Your task to perform on an android device: Play the last video I watched on Youtube Image 0: 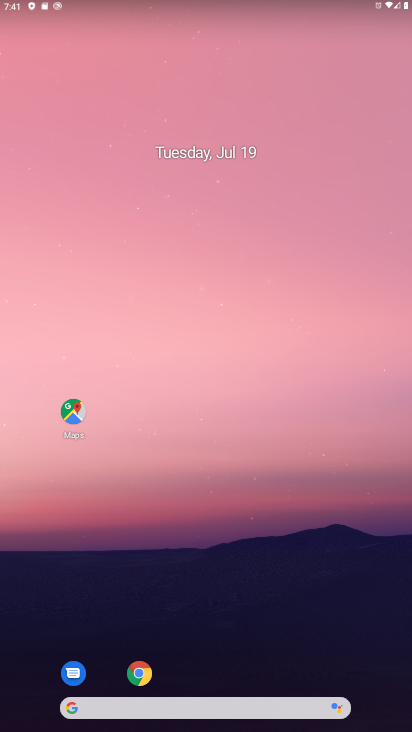
Step 0: drag from (324, 381) to (339, 55)
Your task to perform on an android device: Play the last video I watched on Youtube Image 1: 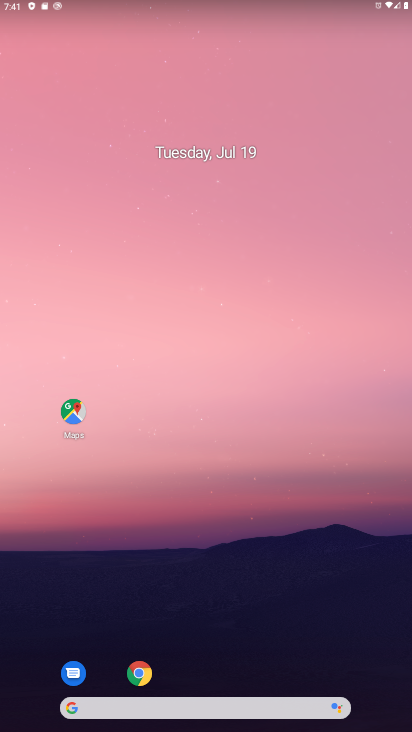
Step 1: drag from (250, 590) to (274, 62)
Your task to perform on an android device: Play the last video I watched on Youtube Image 2: 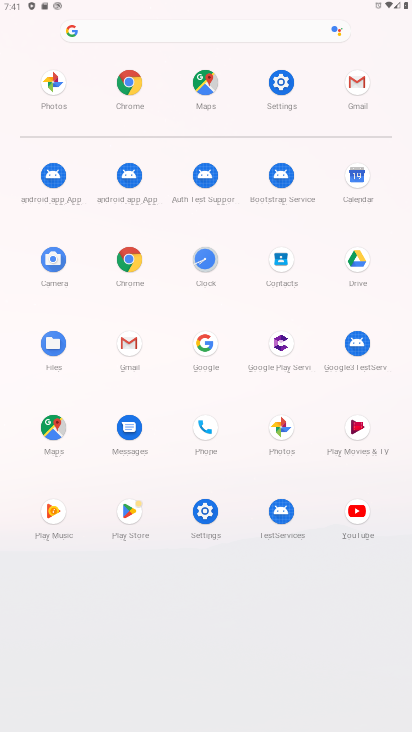
Step 2: click (362, 514)
Your task to perform on an android device: Play the last video I watched on Youtube Image 3: 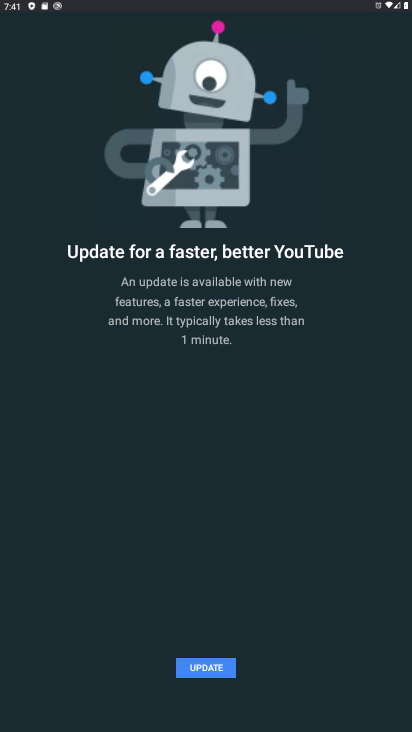
Step 3: click (204, 663)
Your task to perform on an android device: Play the last video I watched on Youtube Image 4: 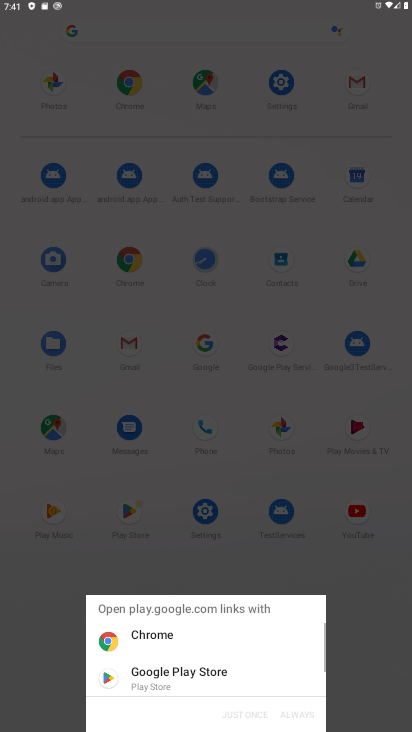
Step 4: click (173, 675)
Your task to perform on an android device: Play the last video I watched on Youtube Image 5: 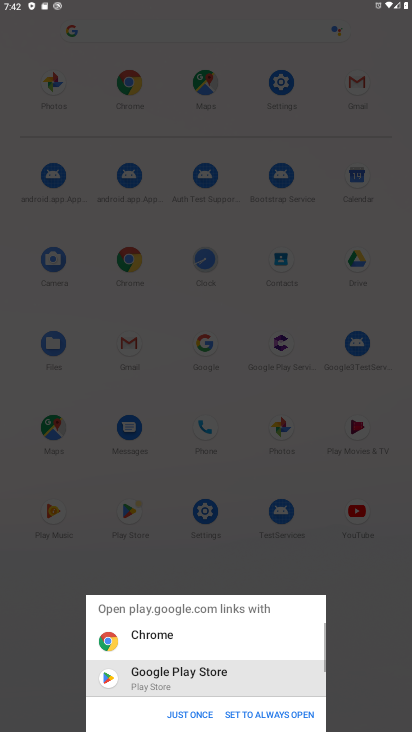
Step 5: click (187, 708)
Your task to perform on an android device: Play the last video I watched on Youtube Image 6: 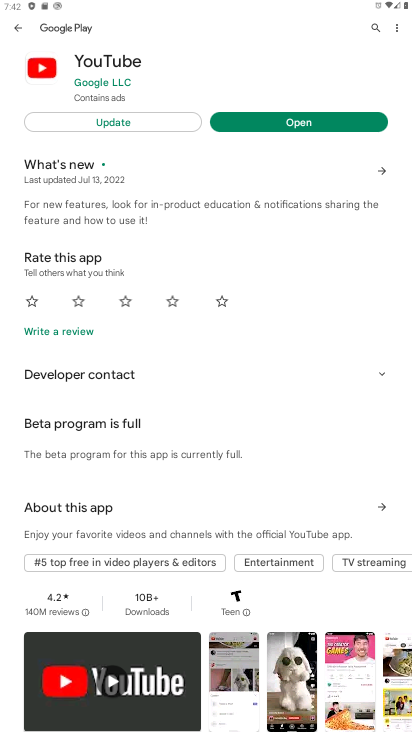
Step 6: click (100, 121)
Your task to perform on an android device: Play the last video I watched on Youtube Image 7: 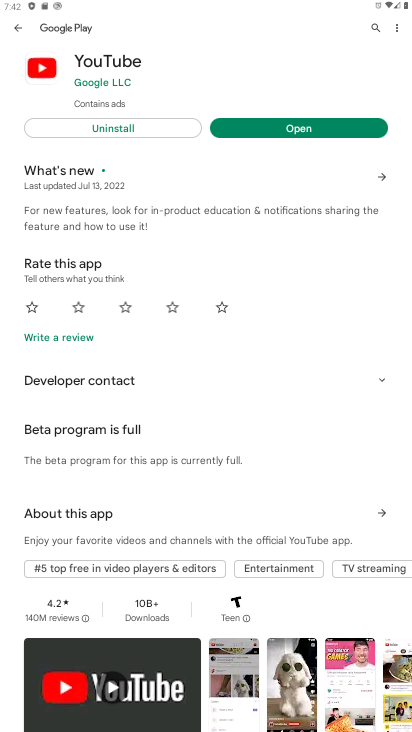
Step 7: click (278, 125)
Your task to perform on an android device: Play the last video I watched on Youtube Image 8: 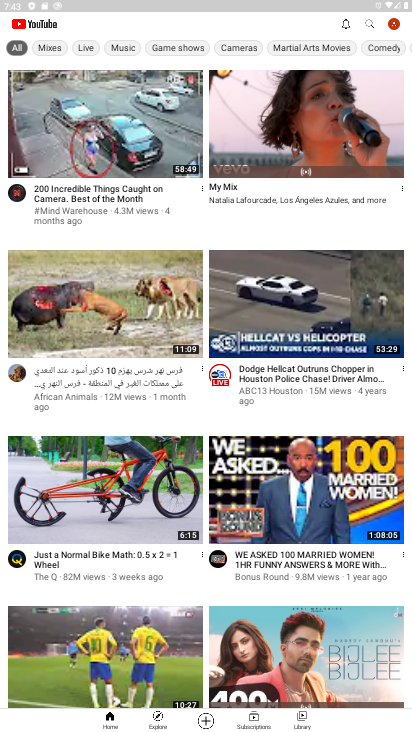
Step 8: click (308, 730)
Your task to perform on an android device: Play the last video I watched on Youtube Image 9: 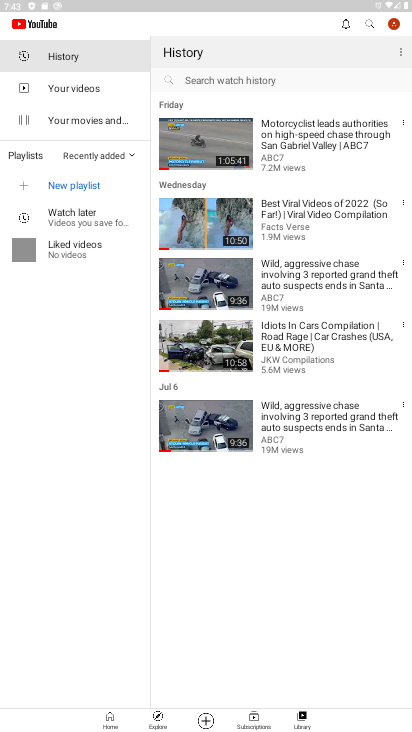
Step 9: click (221, 139)
Your task to perform on an android device: Play the last video I watched on Youtube Image 10: 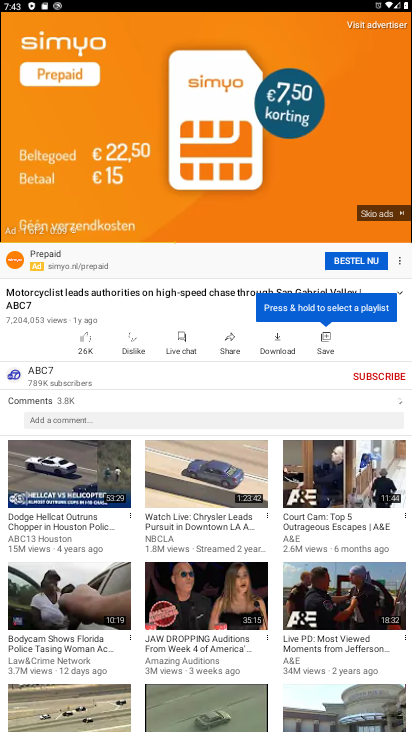
Step 10: click (396, 214)
Your task to perform on an android device: Play the last video I watched on Youtube Image 11: 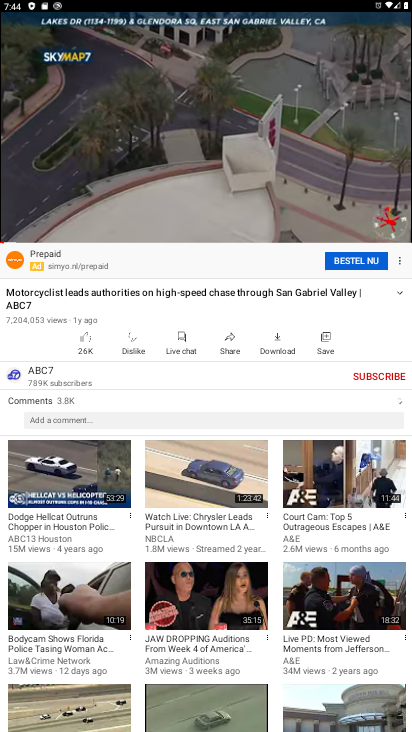
Step 11: task complete